Your task to perform on an android device: Open the phone app and click the voicemail tab. Image 0: 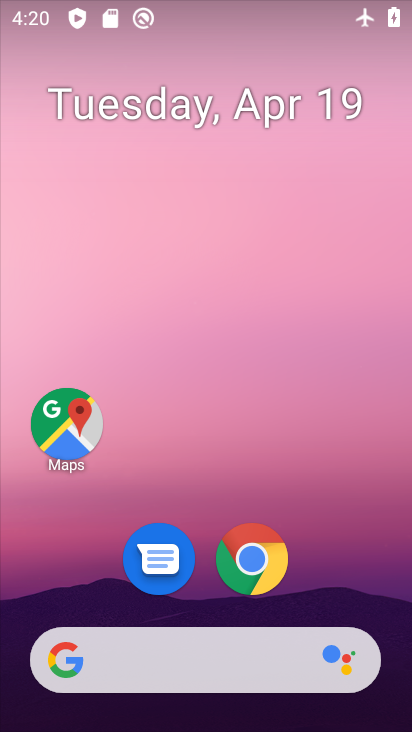
Step 0: drag from (338, 568) to (176, 2)
Your task to perform on an android device: Open the phone app and click the voicemail tab. Image 1: 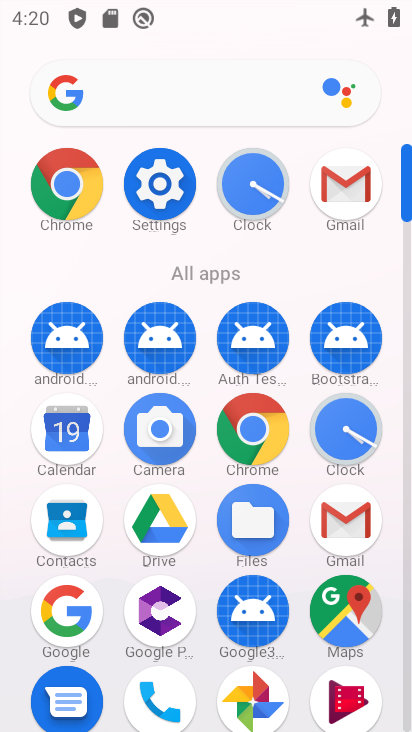
Step 1: click (186, 709)
Your task to perform on an android device: Open the phone app and click the voicemail tab. Image 2: 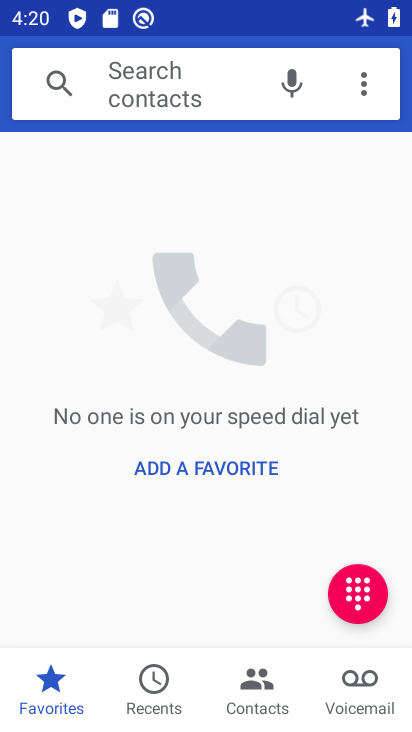
Step 2: click (369, 700)
Your task to perform on an android device: Open the phone app and click the voicemail tab. Image 3: 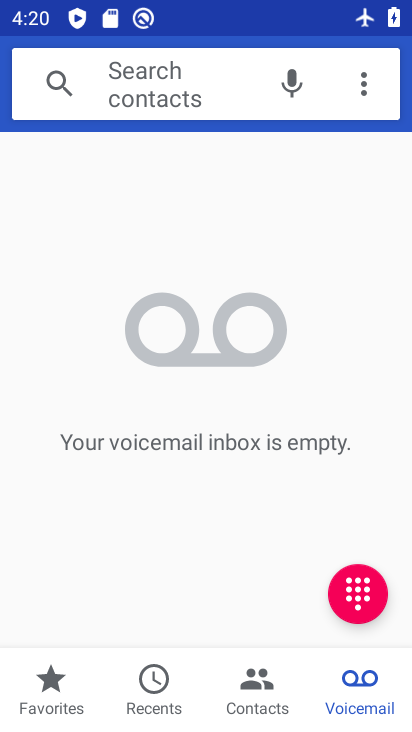
Step 3: task complete